Your task to perform on an android device: Open the web browser Image 0: 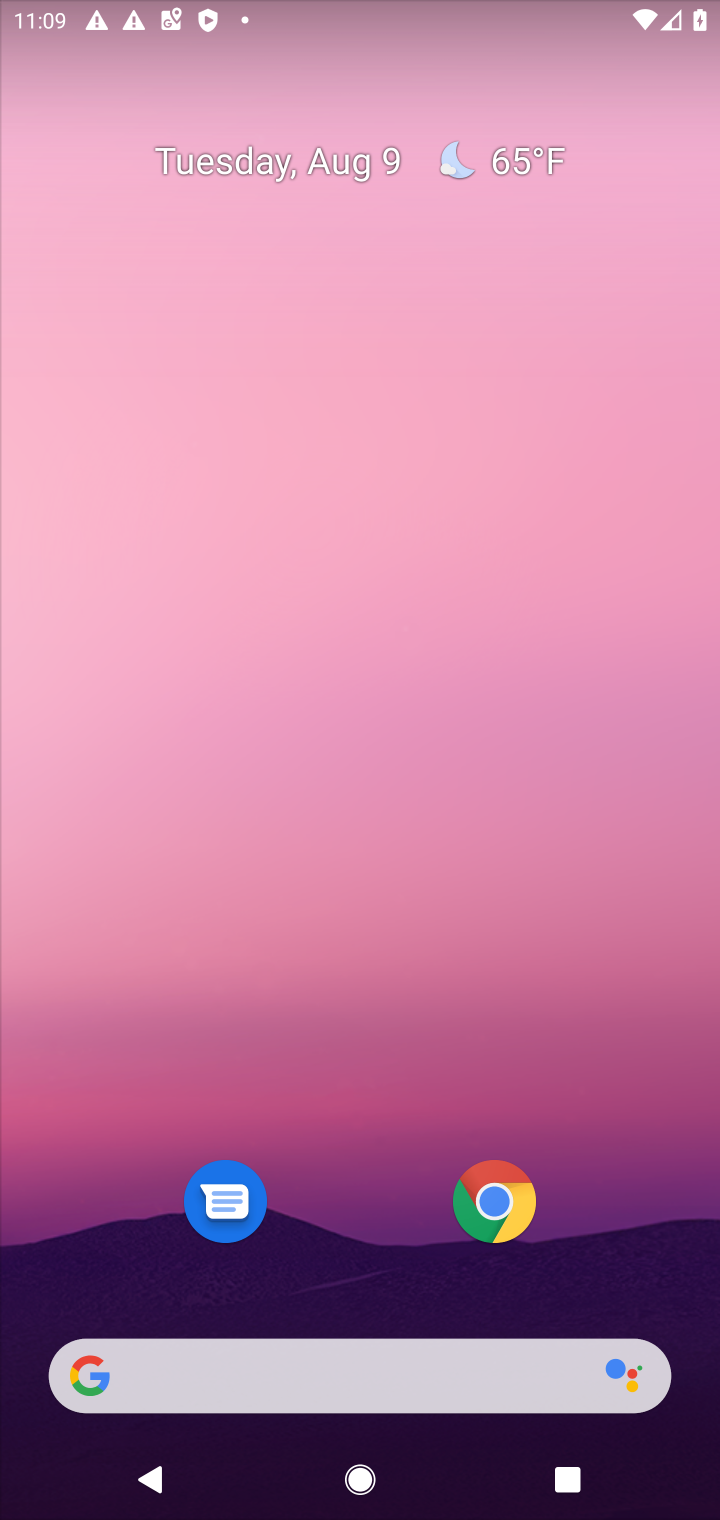
Step 0: press home button
Your task to perform on an android device: Open the web browser Image 1: 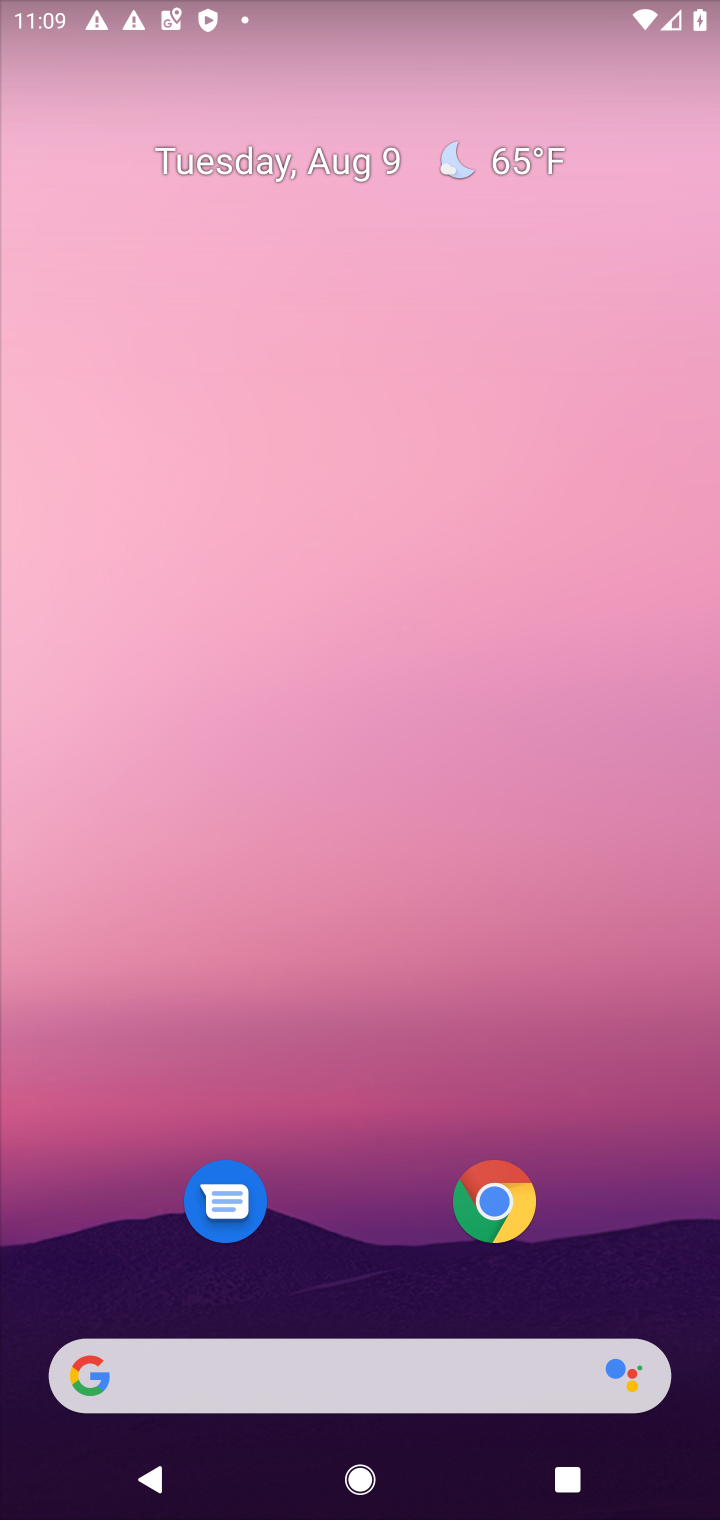
Step 1: click (88, 1394)
Your task to perform on an android device: Open the web browser Image 2: 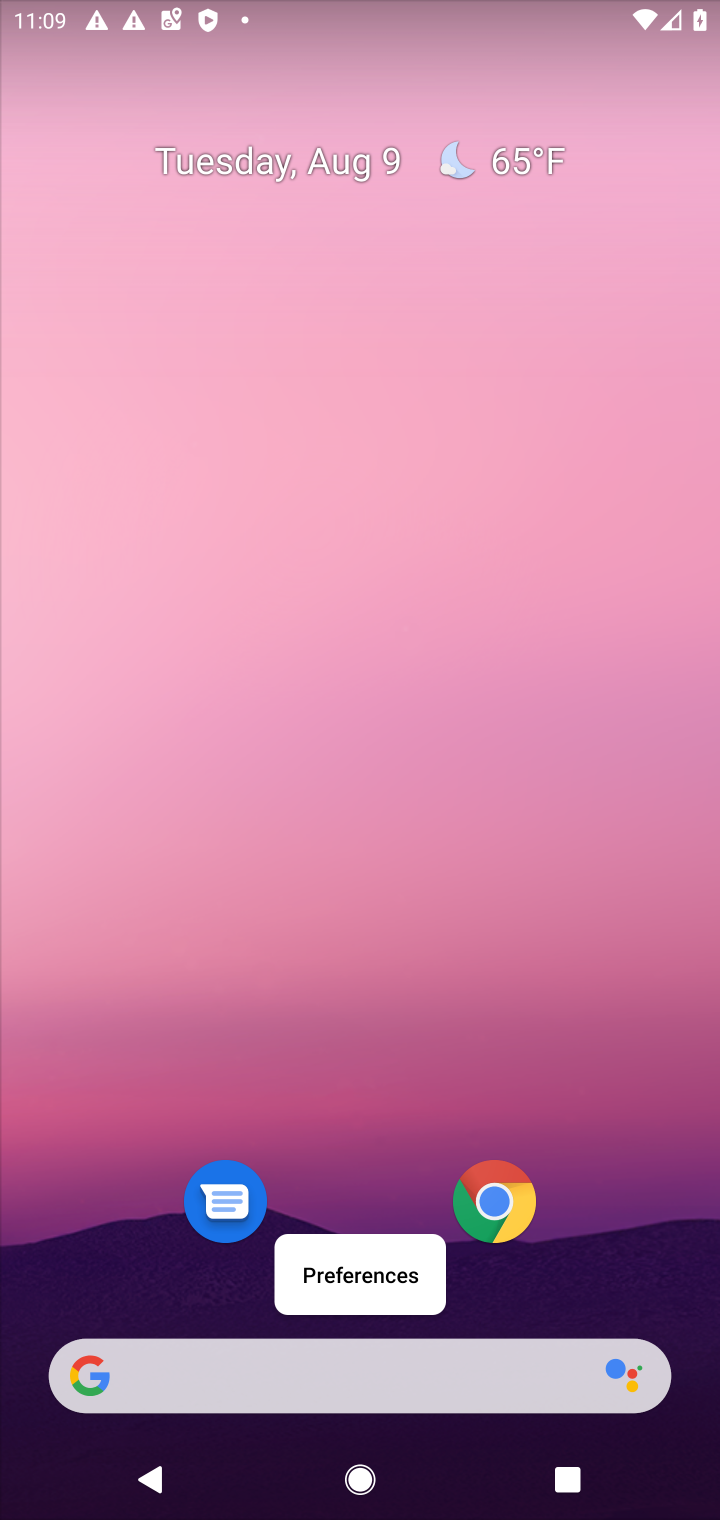
Step 2: click (93, 1374)
Your task to perform on an android device: Open the web browser Image 3: 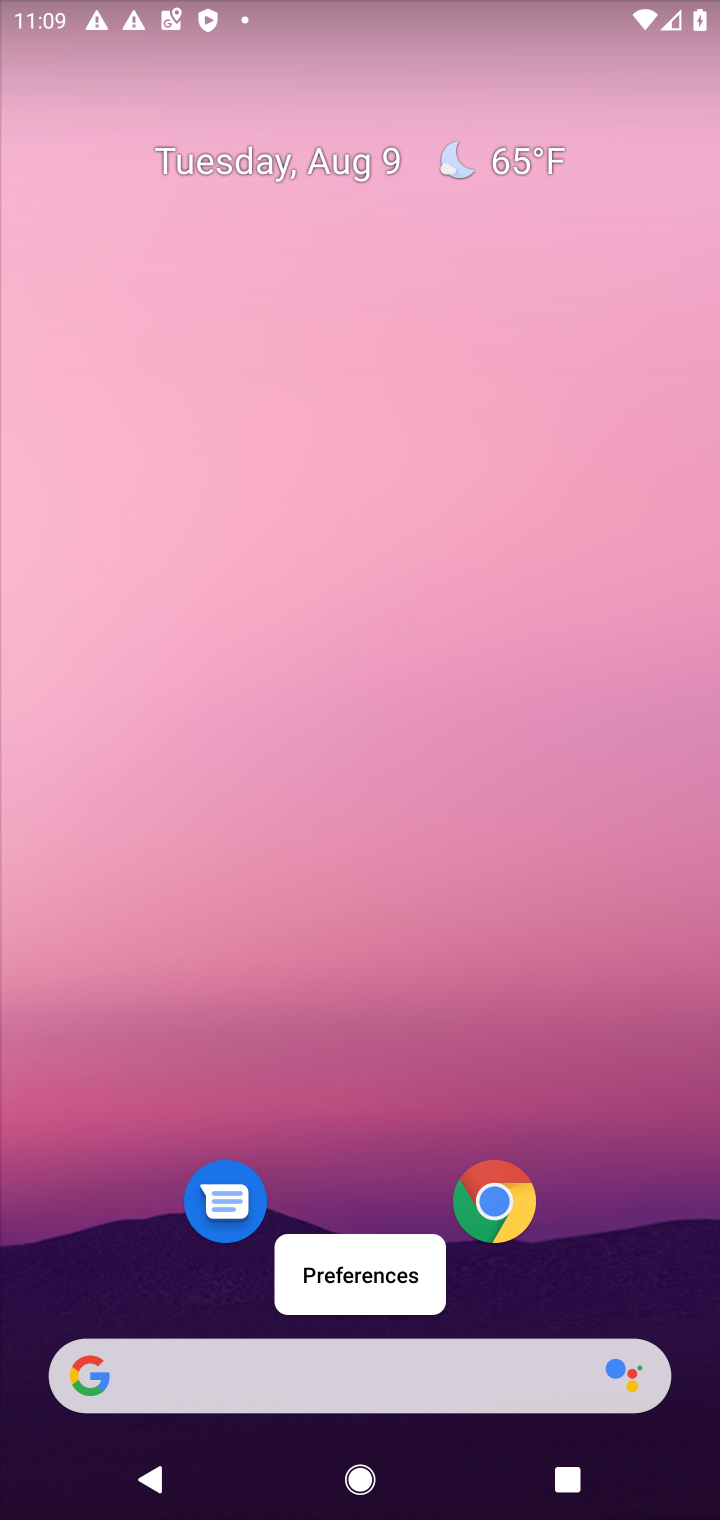
Step 3: drag from (401, 1113) to (416, 71)
Your task to perform on an android device: Open the web browser Image 4: 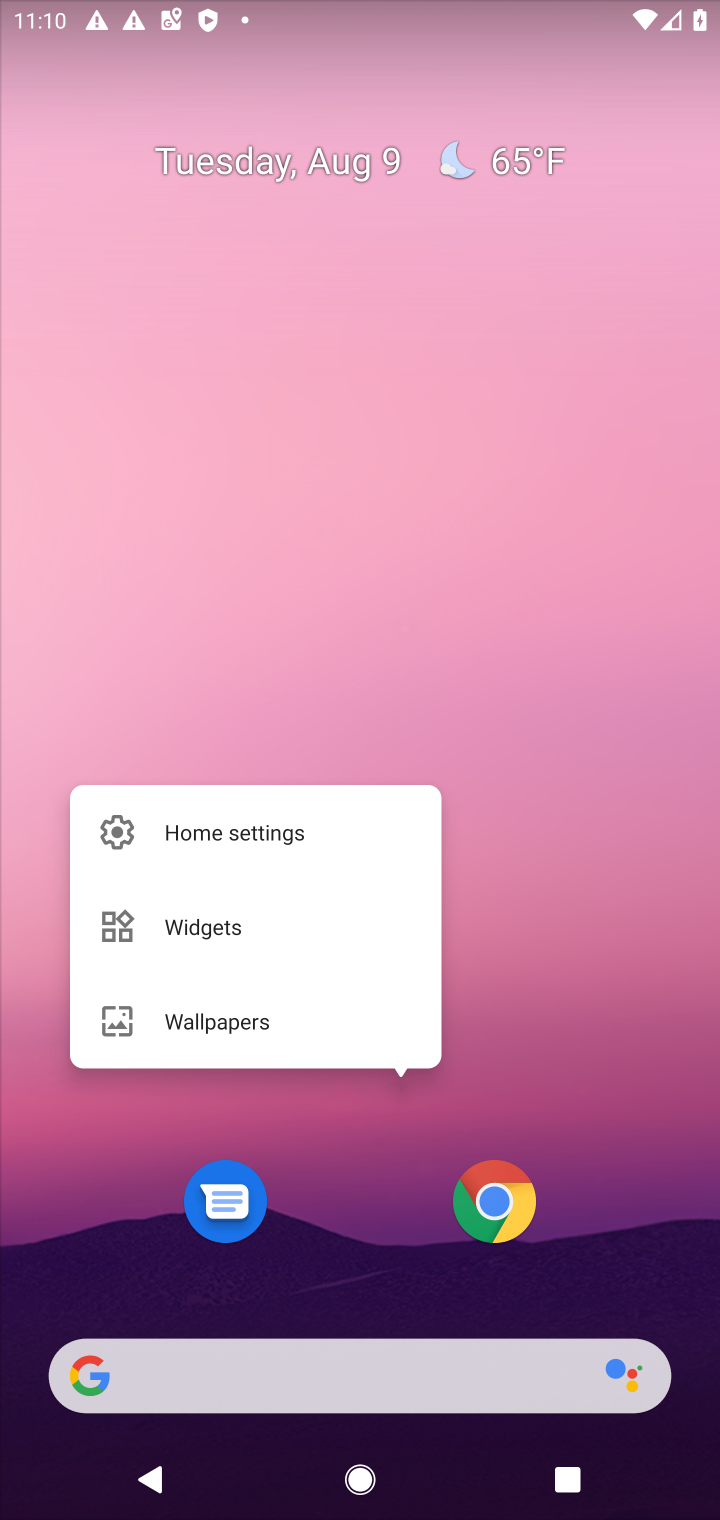
Step 4: drag from (351, 1246) to (440, 32)
Your task to perform on an android device: Open the web browser Image 5: 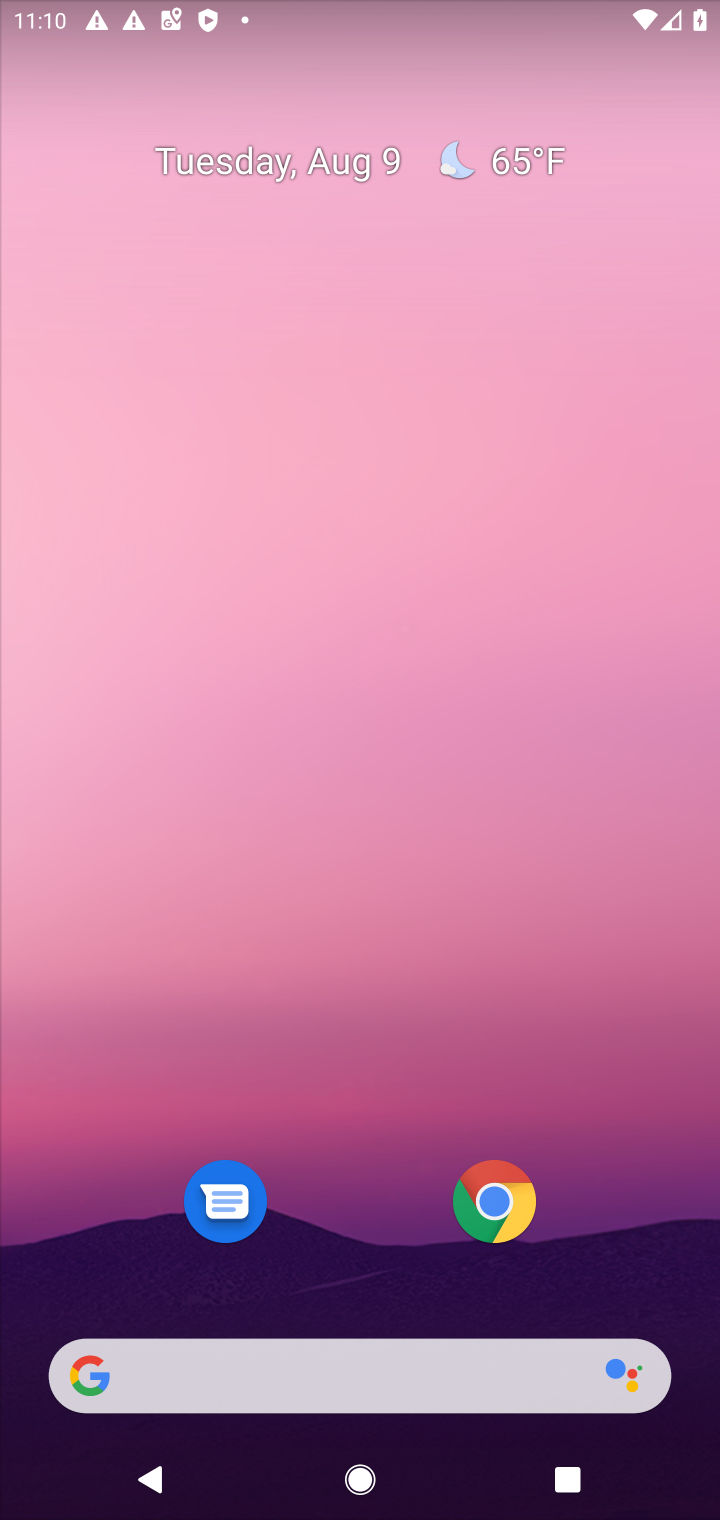
Step 5: drag from (426, 729) to (653, 1337)
Your task to perform on an android device: Open the web browser Image 6: 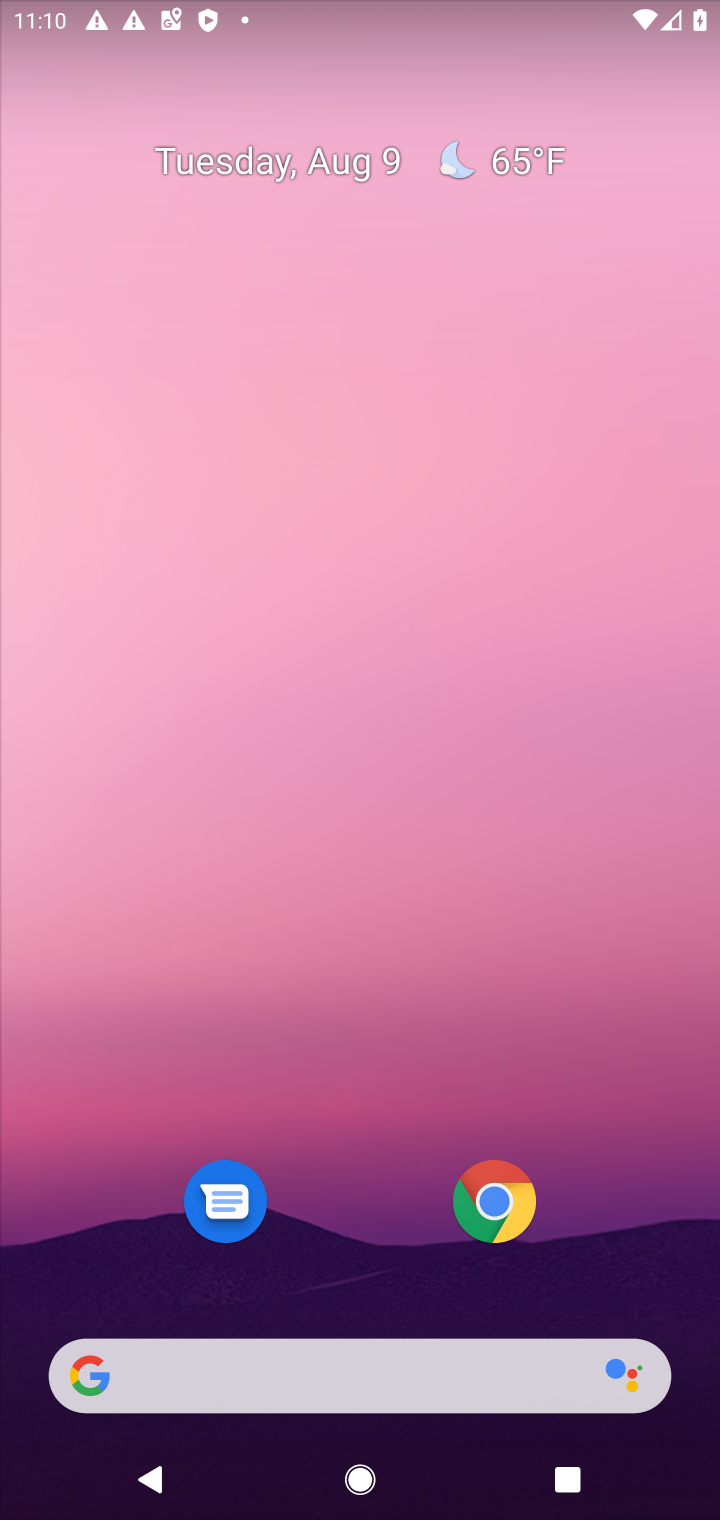
Step 6: drag from (368, 1274) to (367, 120)
Your task to perform on an android device: Open the web browser Image 7: 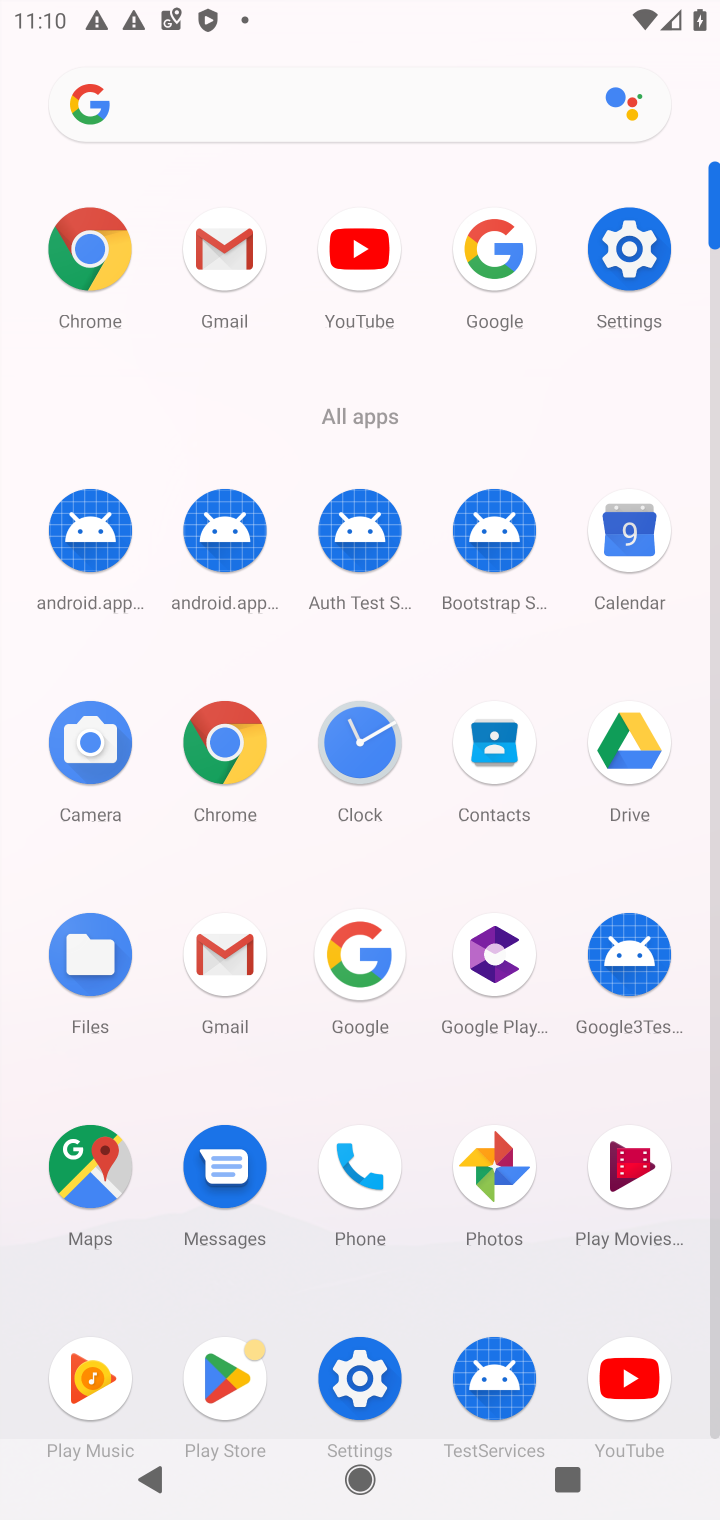
Step 7: click (492, 246)
Your task to perform on an android device: Open the web browser Image 8: 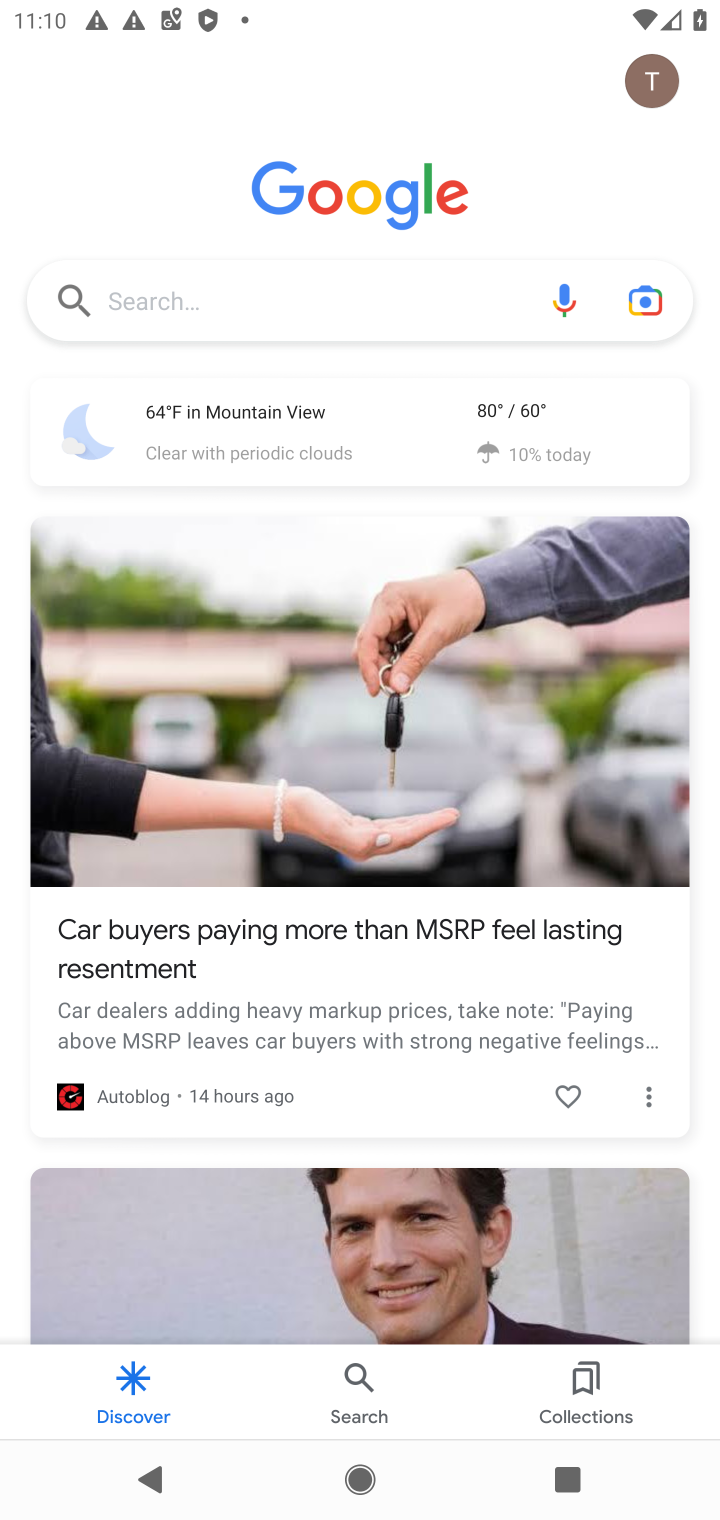
Step 8: task complete